Your task to perform on an android device: refresh tabs in the chrome app Image 0: 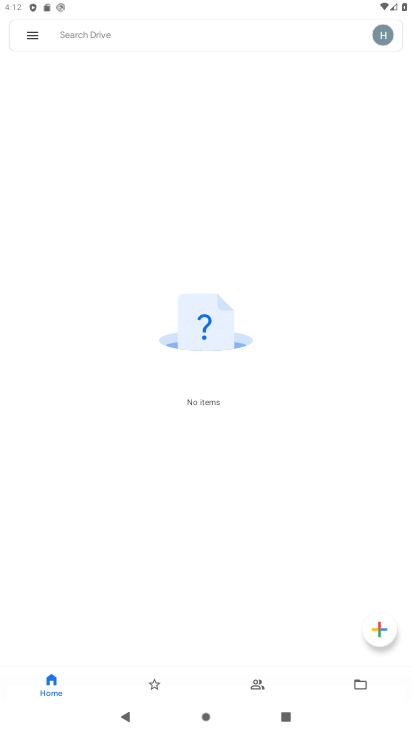
Step 0: press home button
Your task to perform on an android device: refresh tabs in the chrome app Image 1: 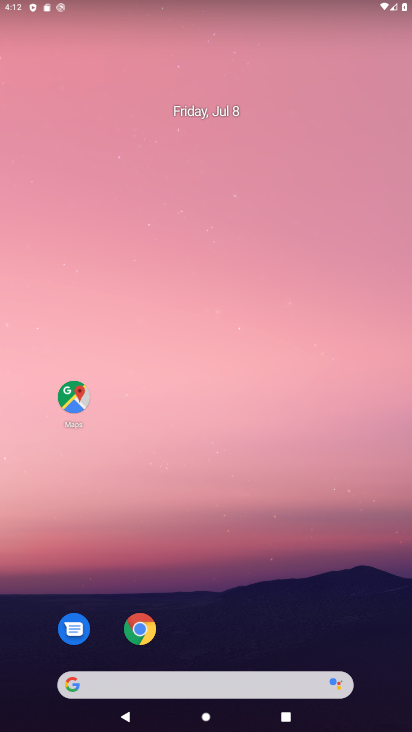
Step 1: click (154, 626)
Your task to perform on an android device: refresh tabs in the chrome app Image 2: 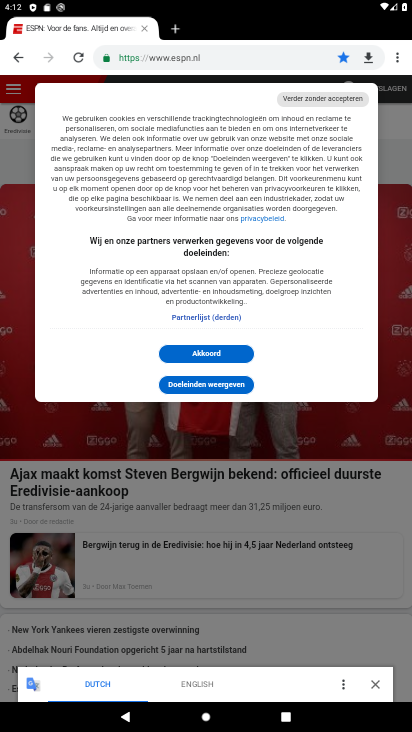
Step 2: click (395, 54)
Your task to perform on an android device: refresh tabs in the chrome app Image 3: 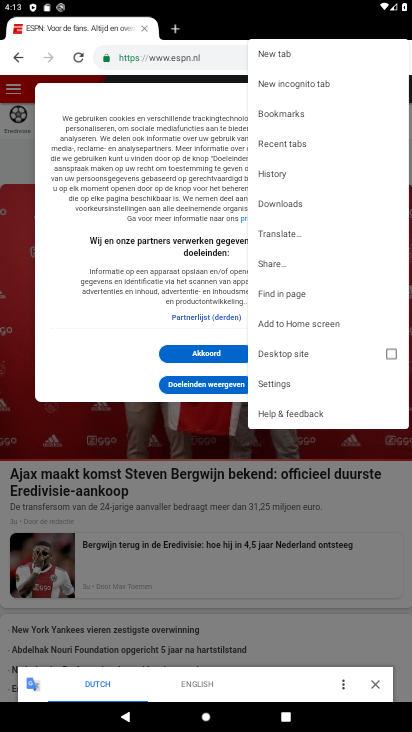
Step 3: click (75, 62)
Your task to perform on an android device: refresh tabs in the chrome app Image 4: 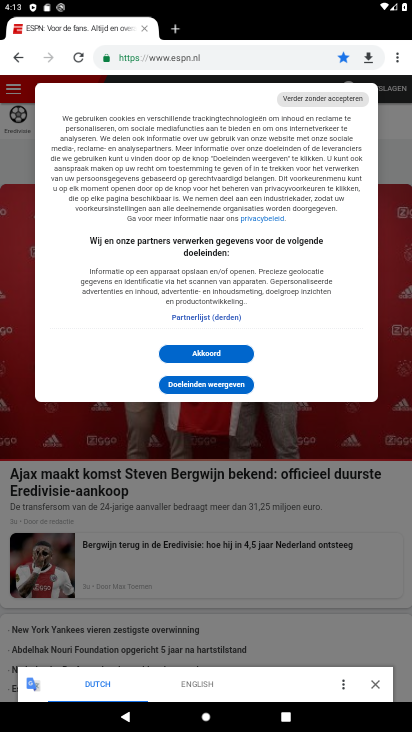
Step 4: task complete